Your task to perform on an android device: Open Google Maps and go to "Timeline" Image 0: 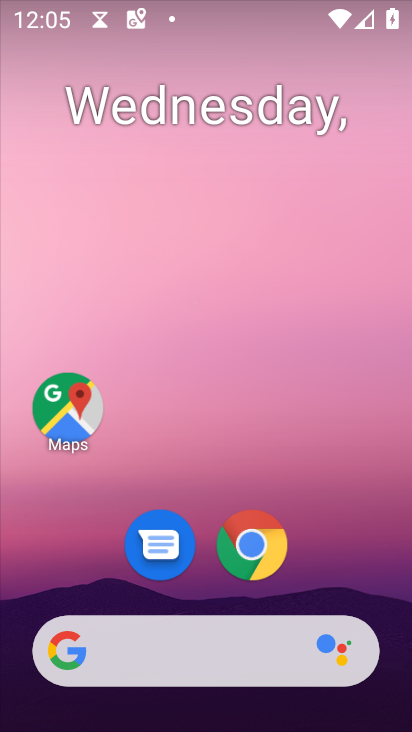
Step 0: drag from (369, 554) to (363, 59)
Your task to perform on an android device: Open Google Maps and go to "Timeline" Image 1: 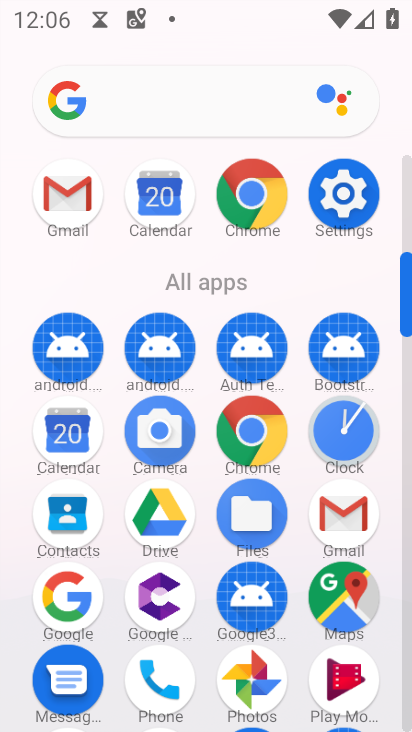
Step 1: click (353, 594)
Your task to perform on an android device: Open Google Maps and go to "Timeline" Image 2: 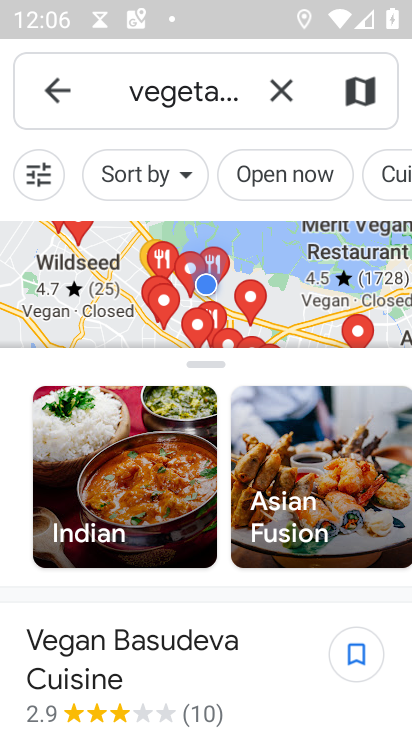
Step 2: click (53, 93)
Your task to perform on an android device: Open Google Maps and go to "Timeline" Image 3: 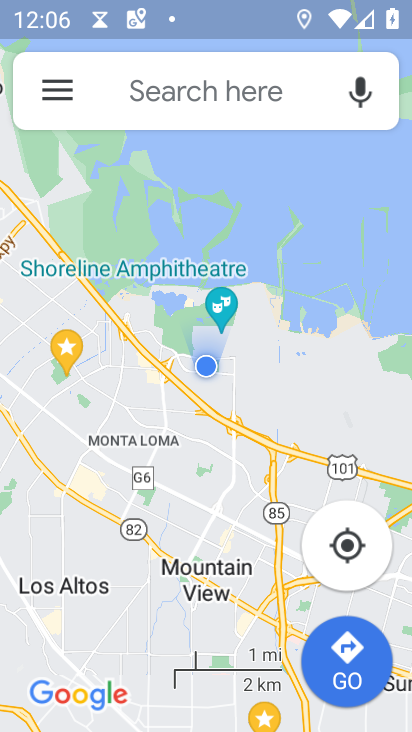
Step 3: click (53, 93)
Your task to perform on an android device: Open Google Maps and go to "Timeline" Image 4: 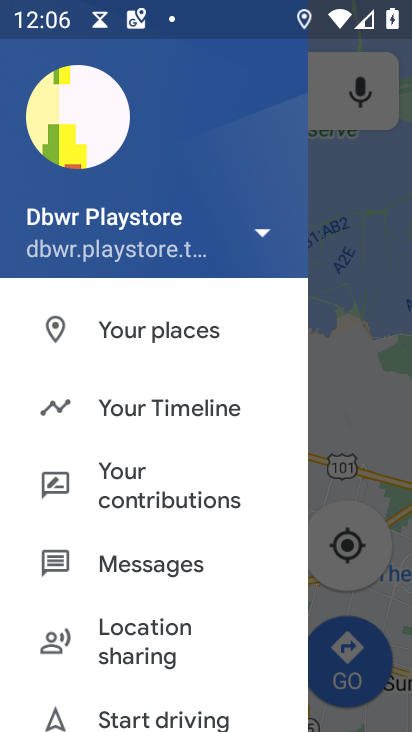
Step 4: click (171, 404)
Your task to perform on an android device: Open Google Maps and go to "Timeline" Image 5: 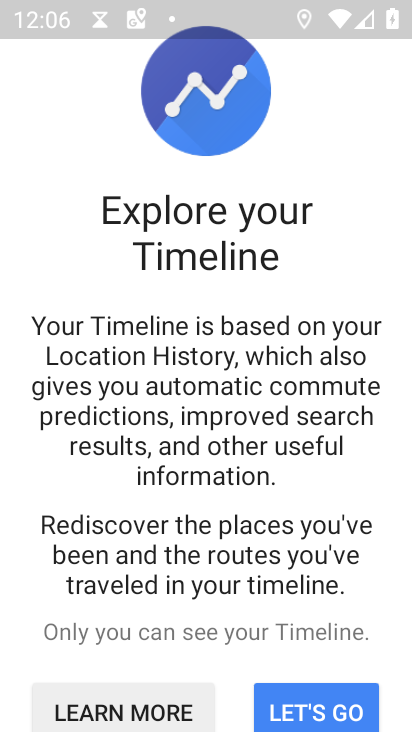
Step 5: task complete